Your task to perform on an android device: Open the web browser Image 0: 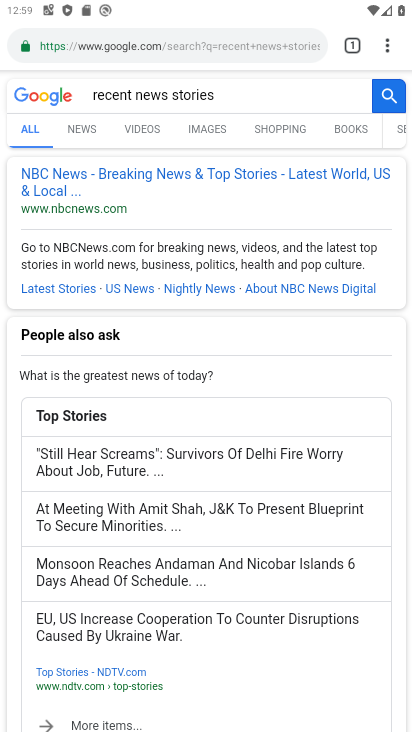
Step 0: press home button
Your task to perform on an android device: Open the web browser Image 1: 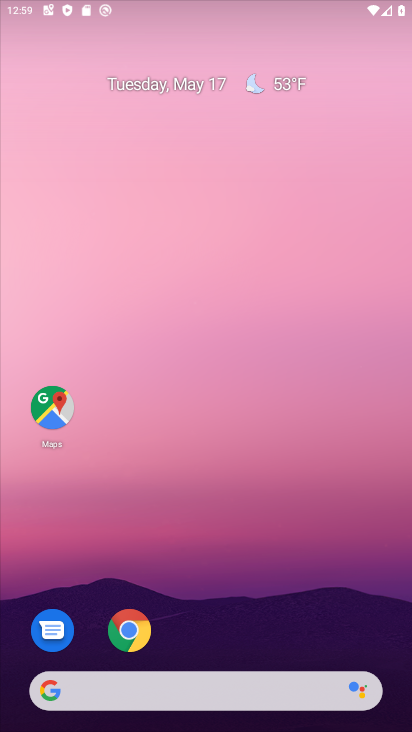
Step 1: drag from (192, 677) to (199, 313)
Your task to perform on an android device: Open the web browser Image 2: 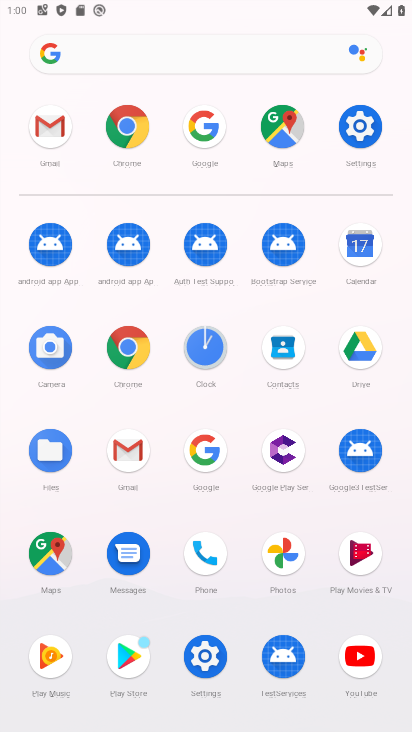
Step 2: click (132, 154)
Your task to perform on an android device: Open the web browser Image 3: 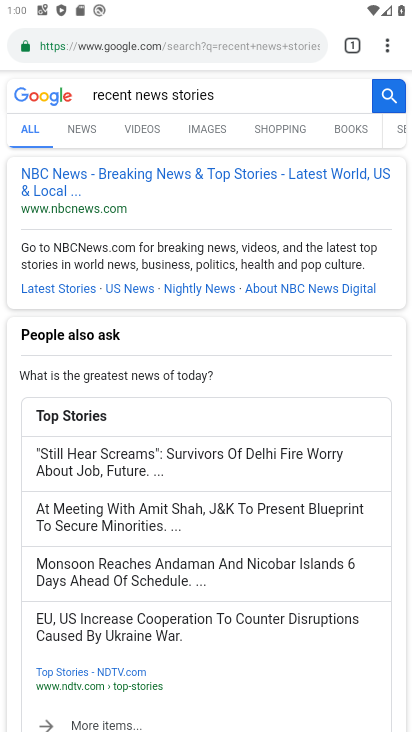
Step 3: task complete